Your task to perform on an android device: toggle airplane mode Image 0: 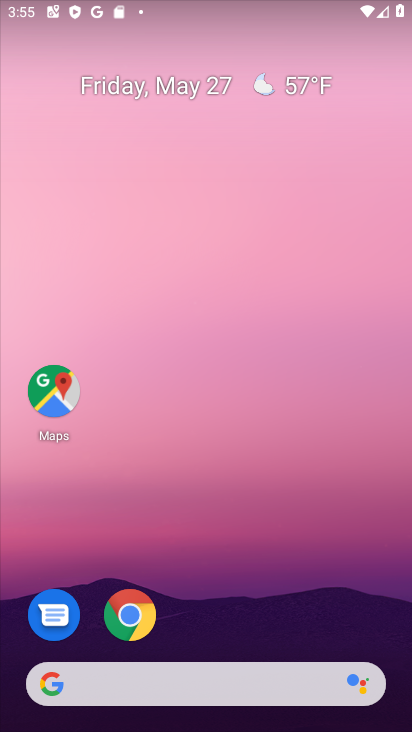
Step 0: drag from (216, 618) to (258, 161)
Your task to perform on an android device: toggle airplane mode Image 1: 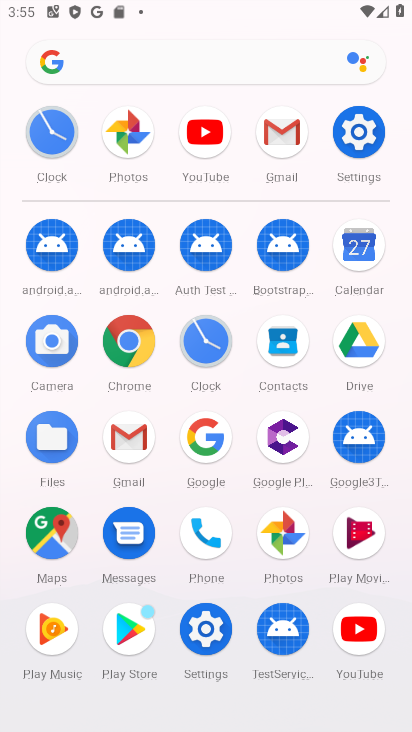
Step 1: click (350, 134)
Your task to perform on an android device: toggle airplane mode Image 2: 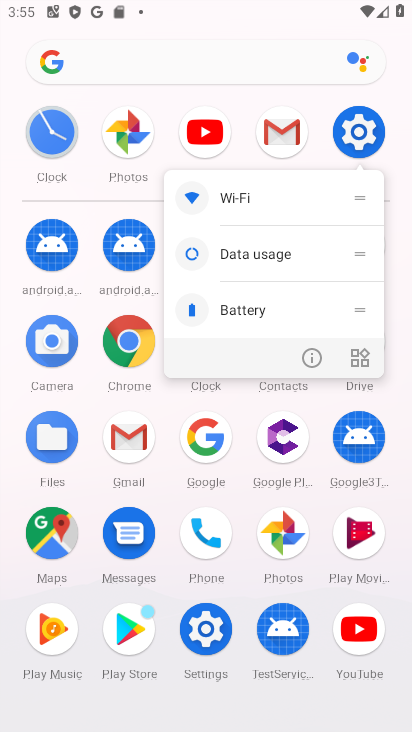
Step 2: click (351, 132)
Your task to perform on an android device: toggle airplane mode Image 3: 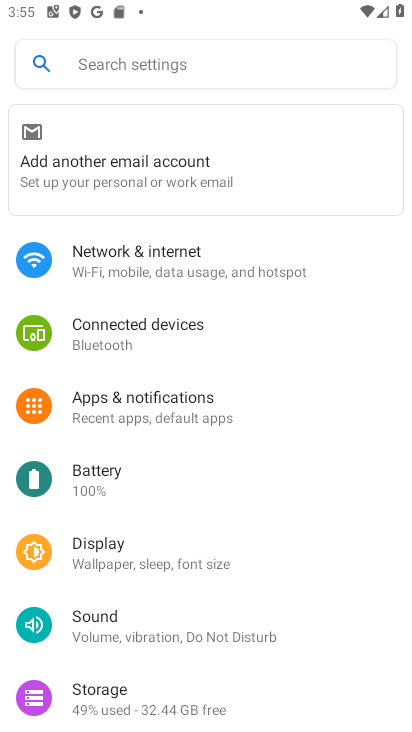
Step 3: click (143, 263)
Your task to perform on an android device: toggle airplane mode Image 4: 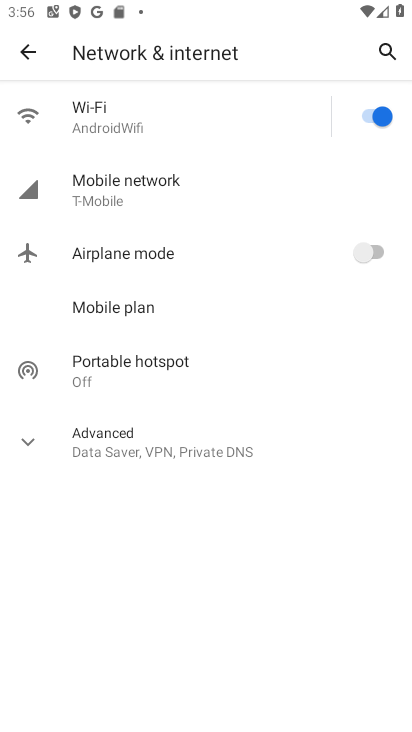
Step 4: click (137, 190)
Your task to perform on an android device: toggle airplane mode Image 5: 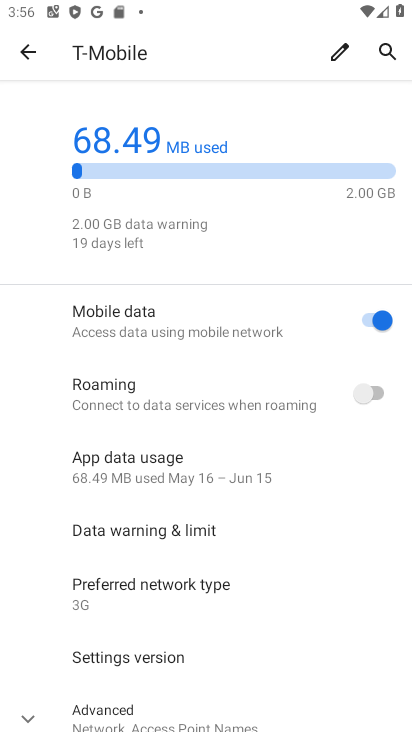
Step 5: click (18, 56)
Your task to perform on an android device: toggle airplane mode Image 6: 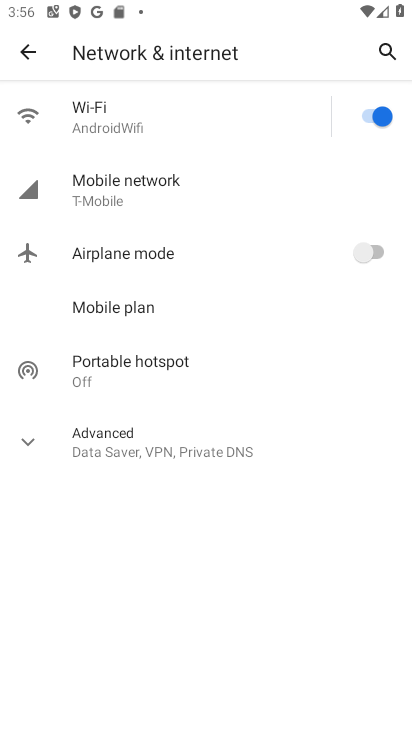
Step 6: click (373, 251)
Your task to perform on an android device: toggle airplane mode Image 7: 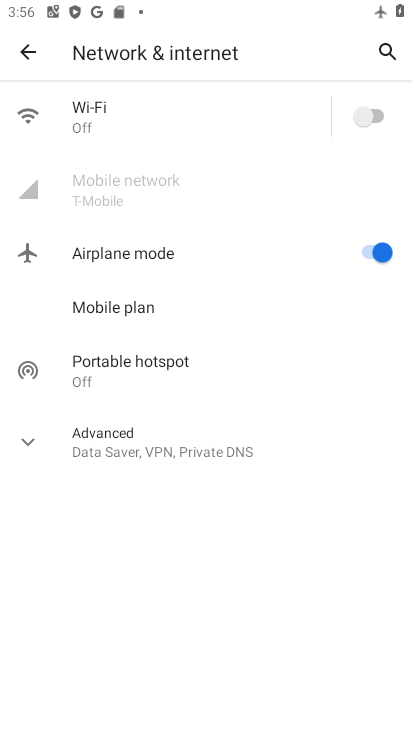
Step 7: task complete